Your task to perform on an android device: Go to internet settings Image 0: 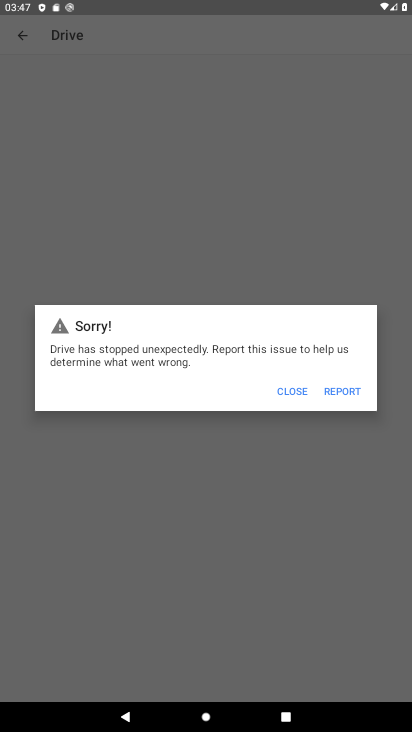
Step 0: press home button
Your task to perform on an android device: Go to internet settings Image 1: 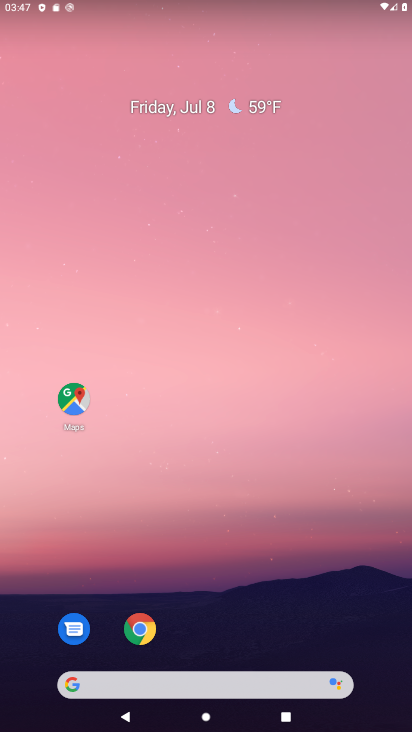
Step 1: click (251, 4)
Your task to perform on an android device: Go to internet settings Image 2: 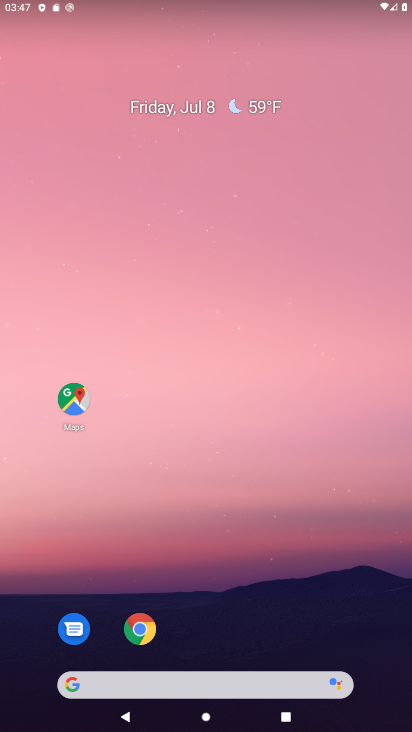
Step 2: drag from (222, 646) to (207, 1)
Your task to perform on an android device: Go to internet settings Image 3: 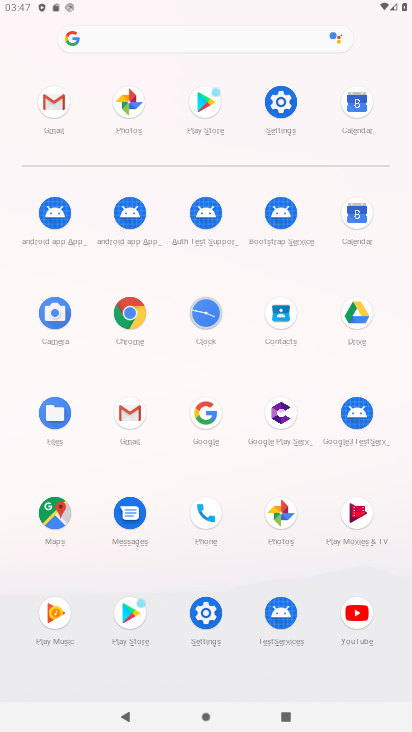
Step 3: click (275, 102)
Your task to perform on an android device: Go to internet settings Image 4: 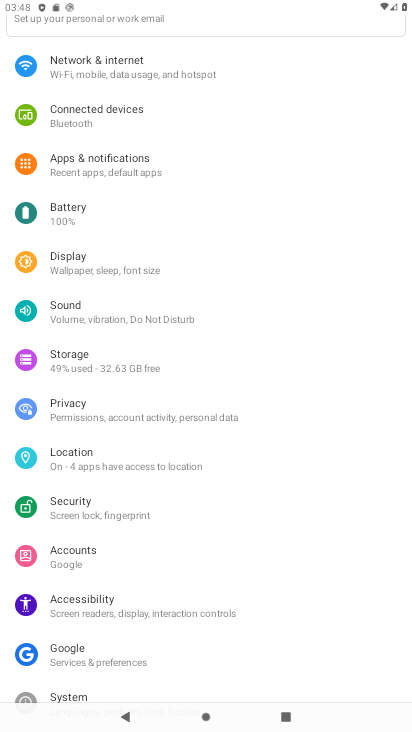
Step 4: click (141, 67)
Your task to perform on an android device: Go to internet settings Image 5: 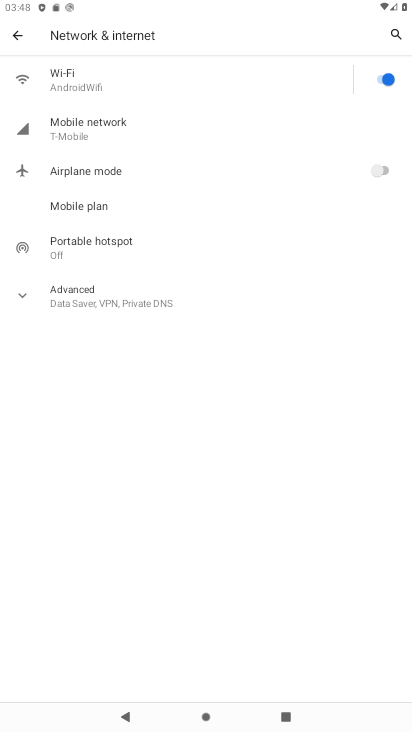
Step 5: click (125, 300)
Your task to perform on an android device: Go to internet settings Image 6: 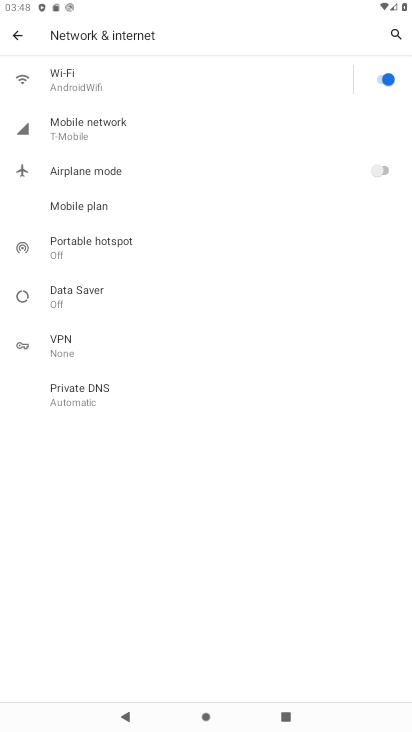
Step 6: task complete